Your task to perform on an android device: toggle airplane mode Image 0: 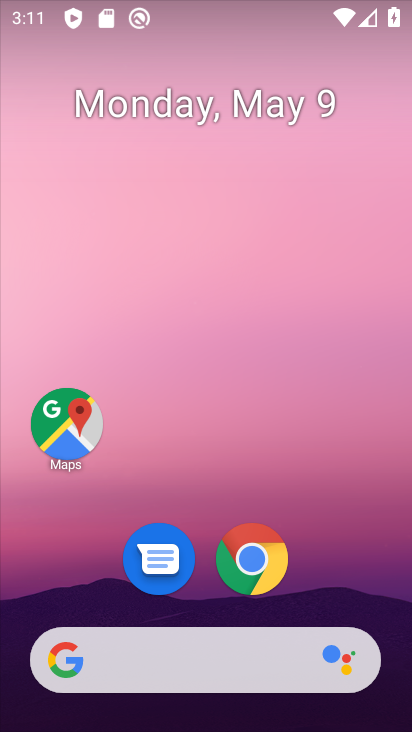
Step 0: drag from (210, 717) to (210, 158)
Your task to perform on an android device: toggle airplane mode Image 1: 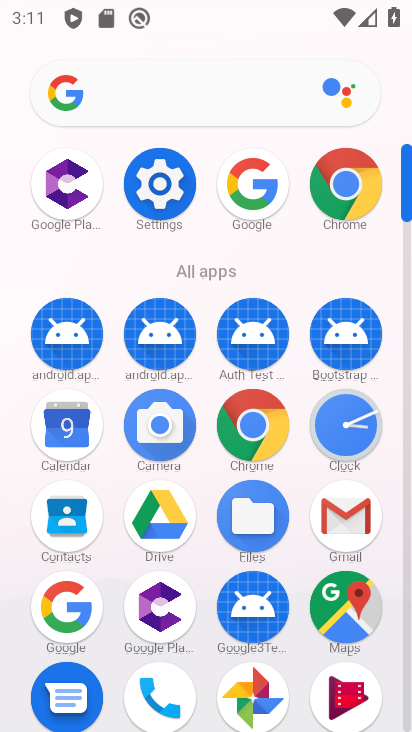
Step 1: click (152, 188)
Your task to perform on an android device: toggle airplane mode Image 2: 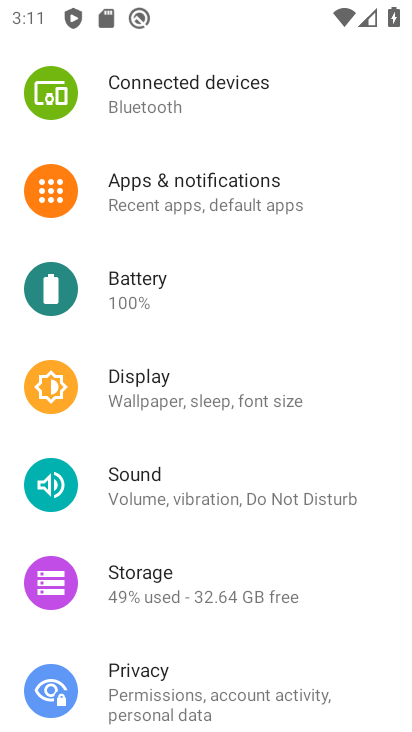
Step 2: drag from (358, 108) to (335, 659)
Your task to perform on an android device: toggle airplane mode Image 3: 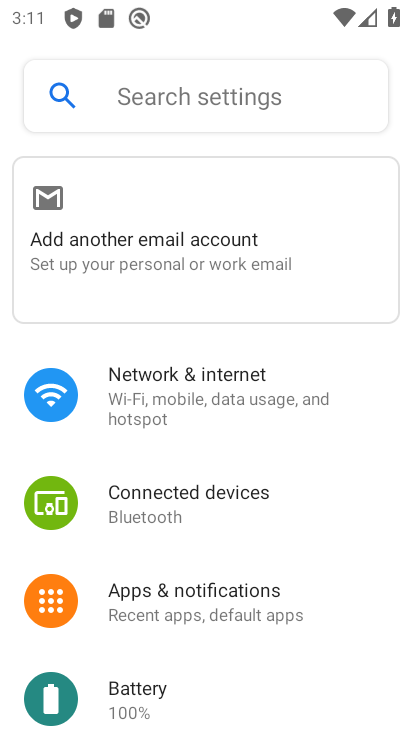
Step 3: click (153, 393)
Your task to perform on an android device: toggle airplane mode Image 4: 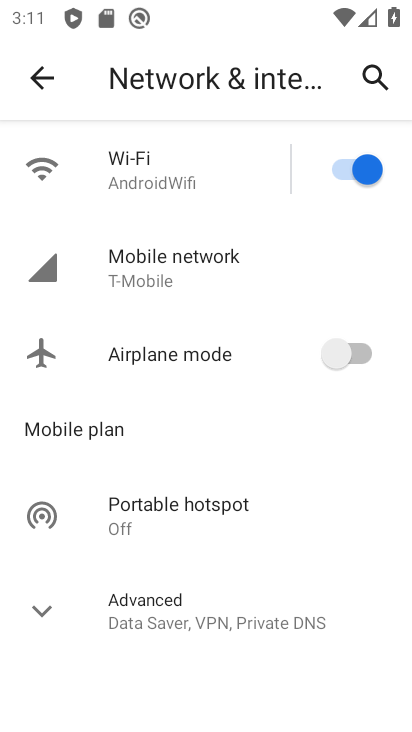
Step 4: click (358, 347)
Your task to perform on an android device: toggle airplane mode Image 5: 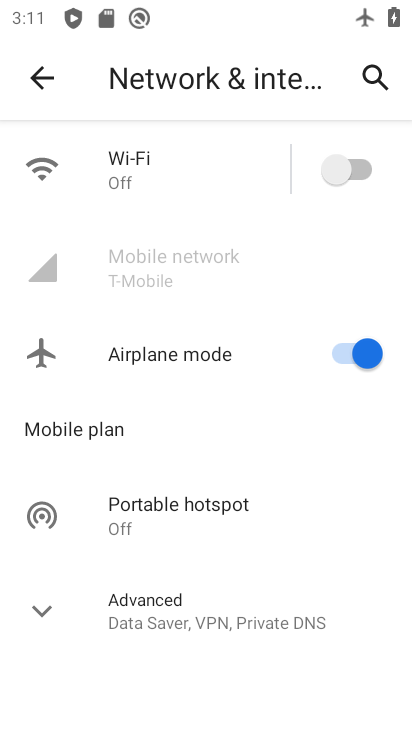
Step 5: task complete